Your task to perform on an android device: open the mobile data screen to see how much data has been used Image 0: 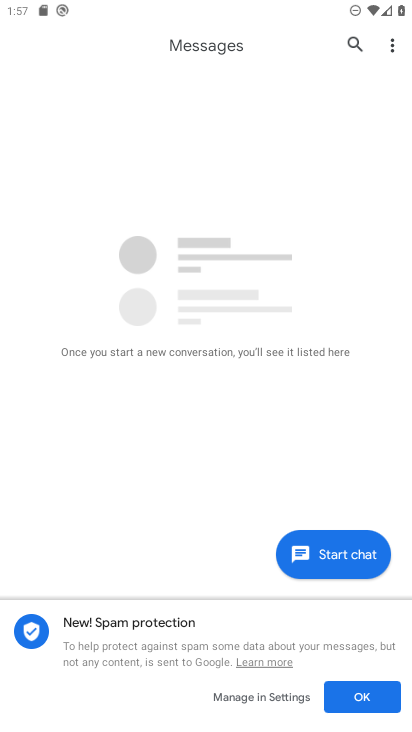
Step 0: press home button
Your task to perform on an android device: open the mobile data screen to see how much data has been used Image 1: 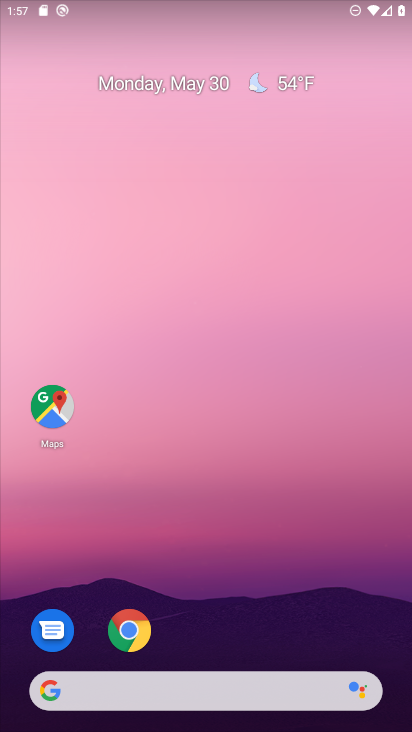
Step 1: drag from (212, 670) to (287, 0)
Your task to perform on an android device: open the mobile data screen to see how much data has been used Image 2: 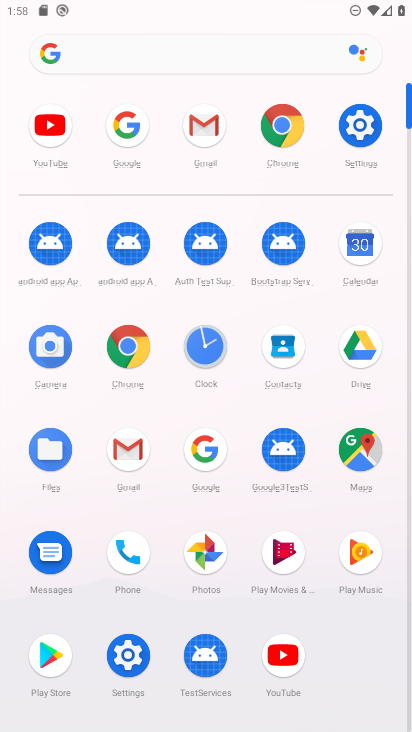
Step 2: click (367, 120)
Your task to perform on an android device: open the mobile data screen to see how much data has been used Image 3: 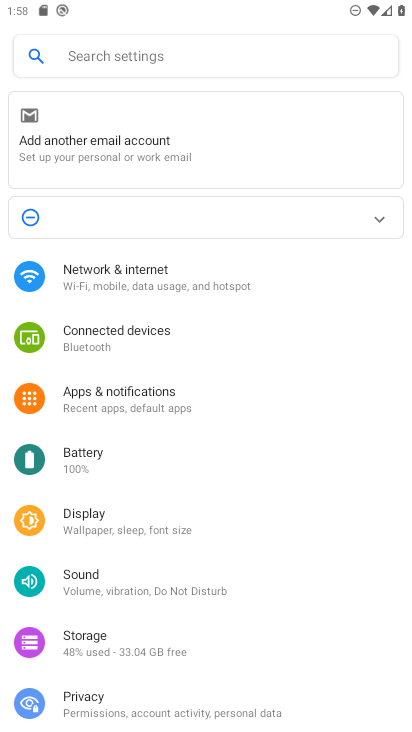
Step 3: click (121, 281)
Your task to perform on an android device: open the mobile data screen to see how much data has been used Image 4: 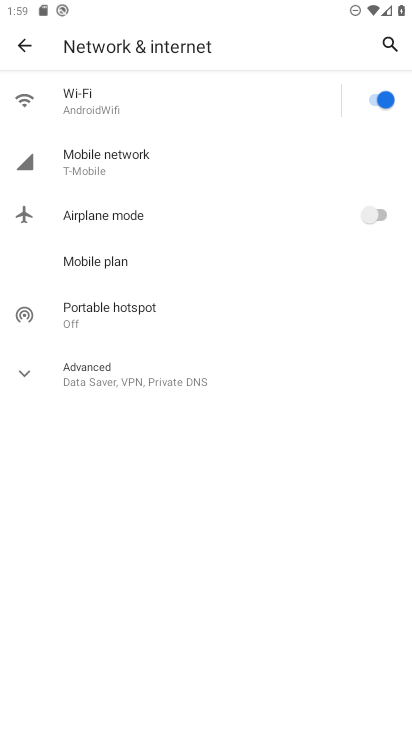
Step 4: click (168, 157)
Your task to perform on an android device: open the mobile data screen to see how much data has been used Image 5: 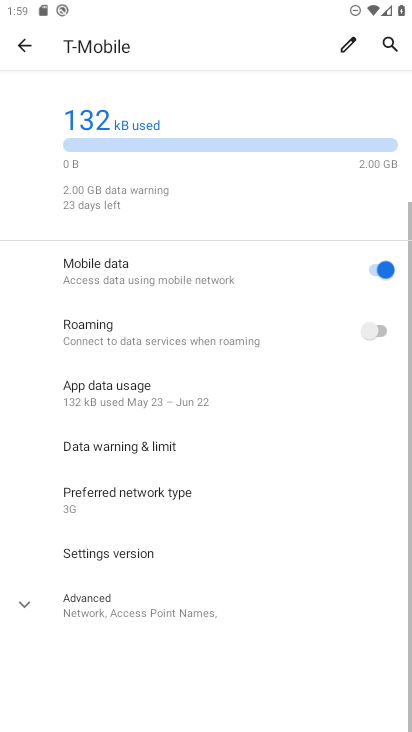
Step 5: task complete